Your task to perform on an android device: turn off javascript in the chrome app Image 0: 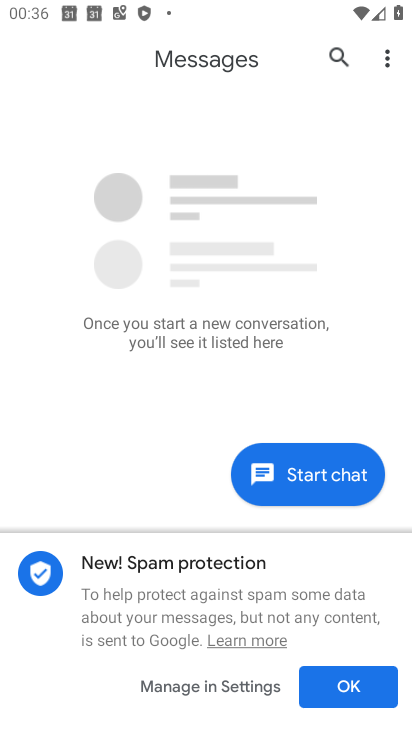
Step 0: press home button
Your task to perform on an android device: turn off javascript in the chrome app Image 1: 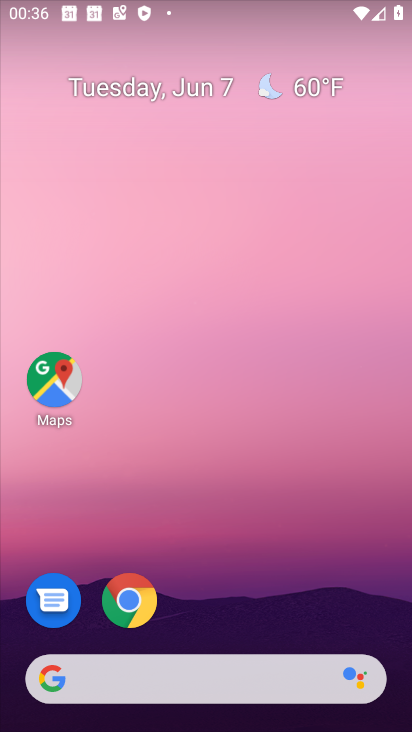
Step 1: click (126, 598)
Your task to perform on an android device: turn off javascript in the chrome app Image 2: 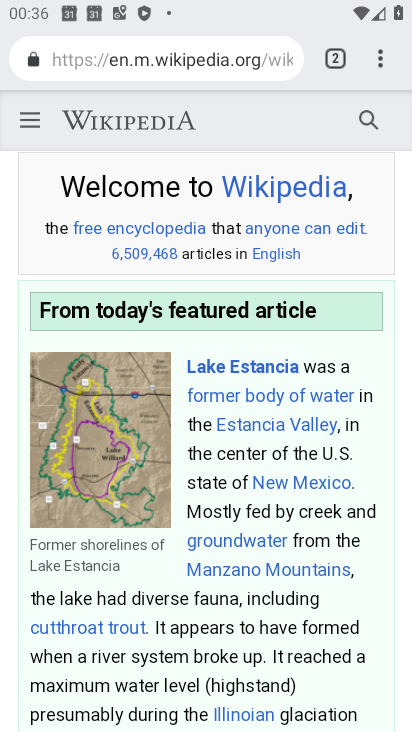
Step 2: click (379, 64)
Your task to perform on an android device: turn off javascript in the chrome app Image 3: 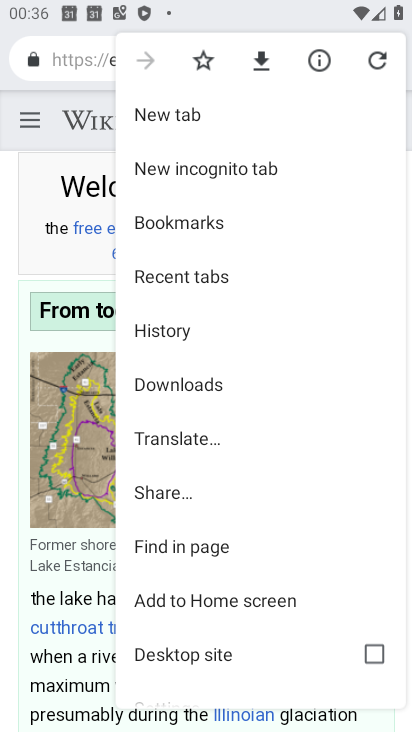
Step 3: drag from (213, 679) to (215, 261)
Your task to perform on an android device: turn off javascript in the chrome app Image 4: 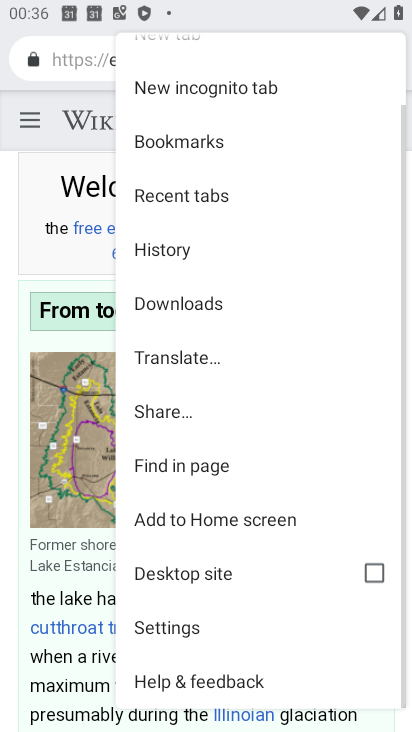
Step 4: click (179, 622)
Your task to perform on an android device: turn off javascript in the chrome app Image 5: 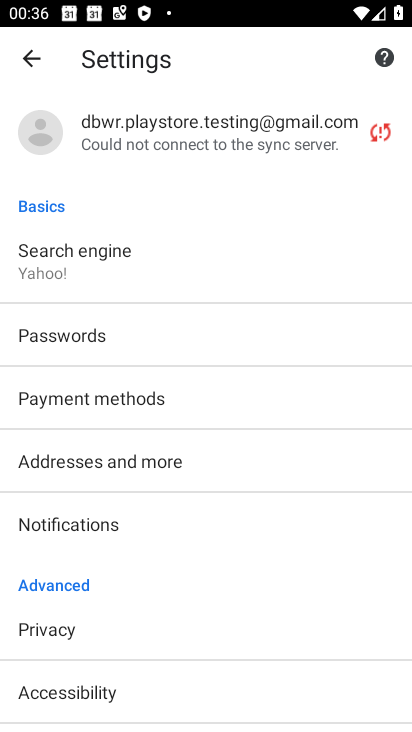
Step 5: drag from (137, 675) to (123, 337)
Your task to perform on an android device: turn off javascript in the chrome app Image 6: 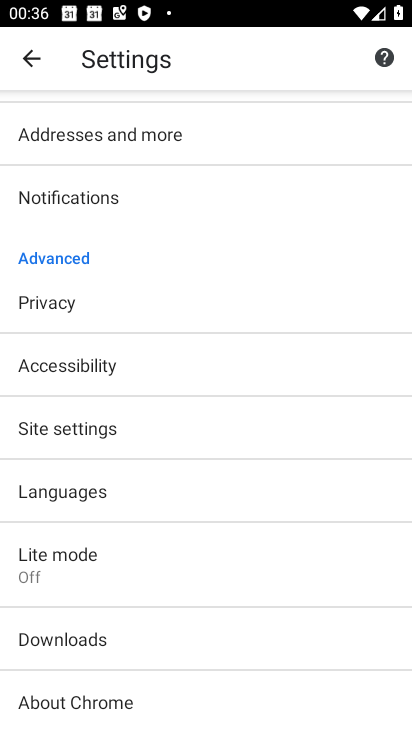
Step 6: drag from (109, 655) to (109, 312)
Your task to perform on an android device: turn off javascript in the chrome app Image 7: 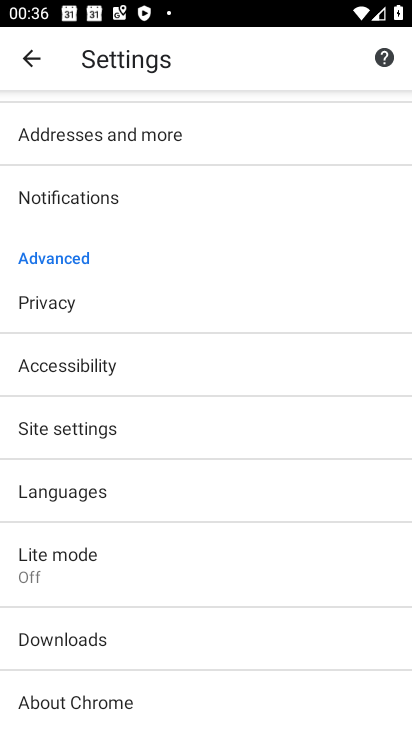
Step 7: click (105, 425)
Your task to perform on an android device: turn off javascript in the chrome app Image 8: 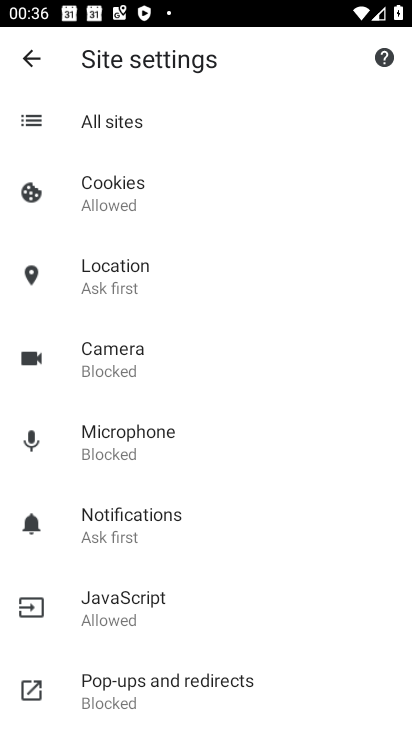
Step 8: click (115, 599)
Your task to perform on an android device: turn off javascript in the chrome app Image 9: 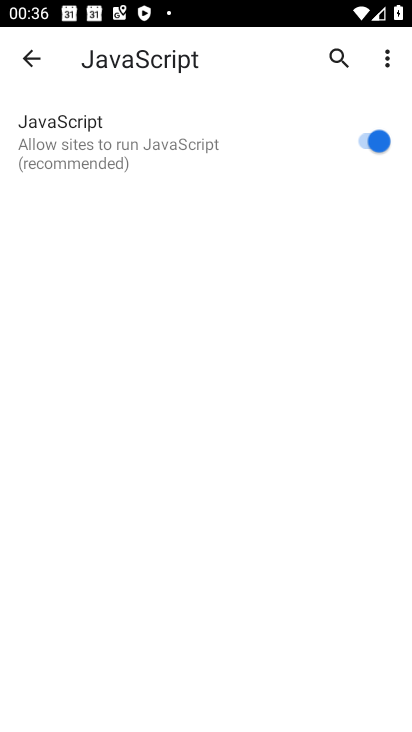
Step 9: click (362, 137)
Your task to perform on an android device: turn off javascript in the chrome app Image 10: 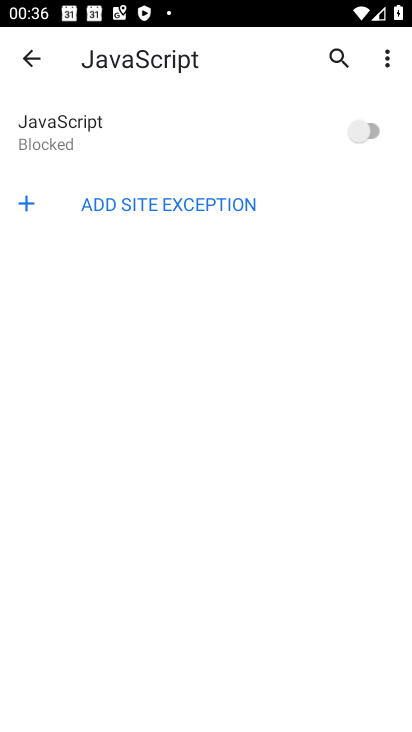
Step 10: task complete